Your task to perform on an android device: Open accessibility settings Image 0: 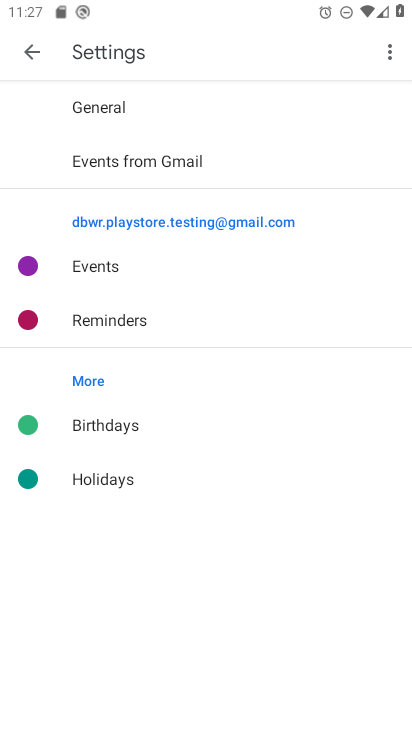
Step 0: press home button
Your task to perform on an android device: Open accessibility settings Image 1: 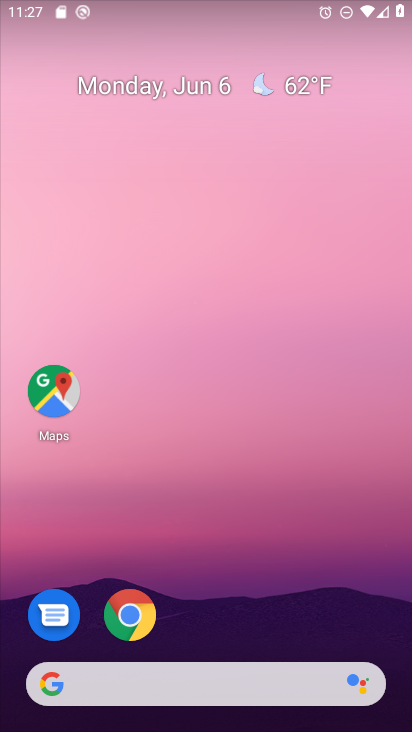
Step 1: drag from (198, 673) to (181, 4)
Your task to perform on an android device: Open accessibility settings Image 2: 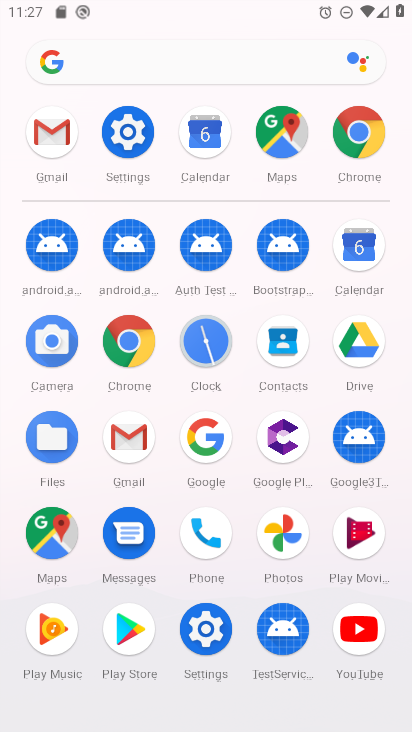
Step 2: click (124, 134)
Your task to perform on an android device: Open accessibility settings Image 3: 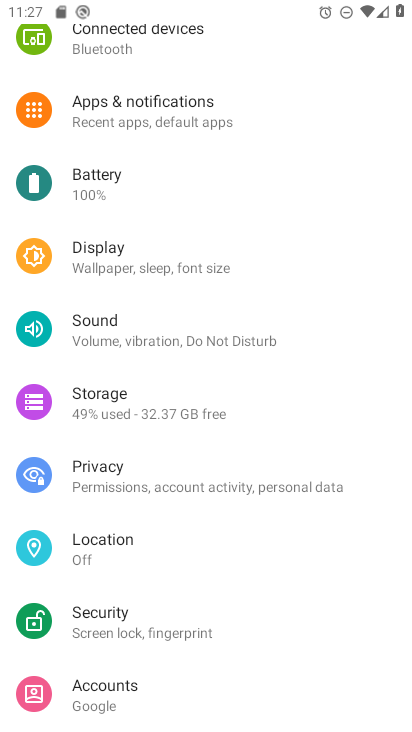
Step 3: drag from (206, 690) to (182, 79)
Your task to perform on an android device: Open accessibility settings Image 4: 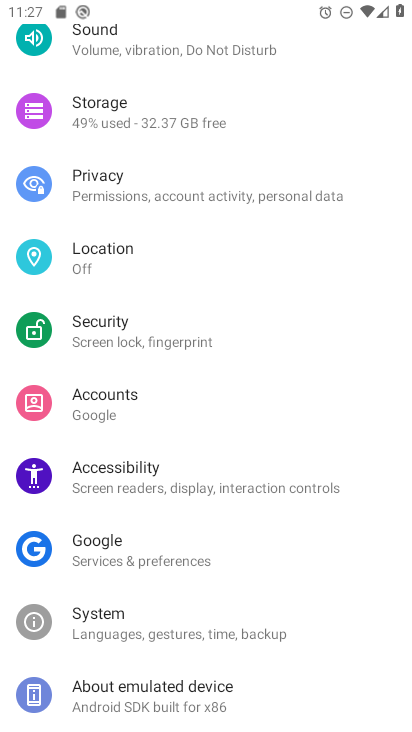
Step 4: click (98, 466)
Your task to perform on an android device: Open accessibility settings Image 5: 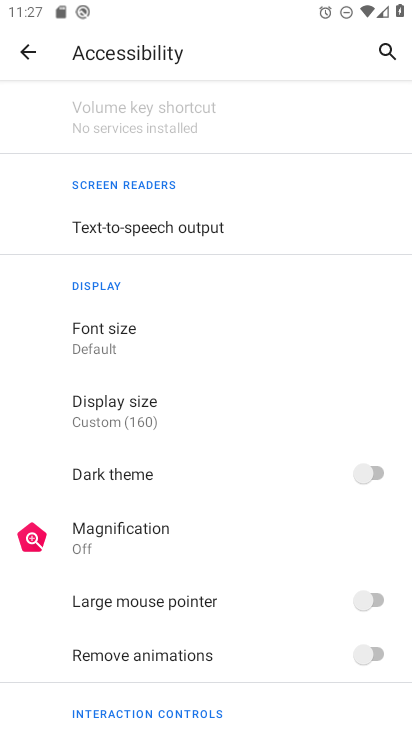
Step 5: task complete